Your task to perform on an android device: Go to CNN.com Image 0: 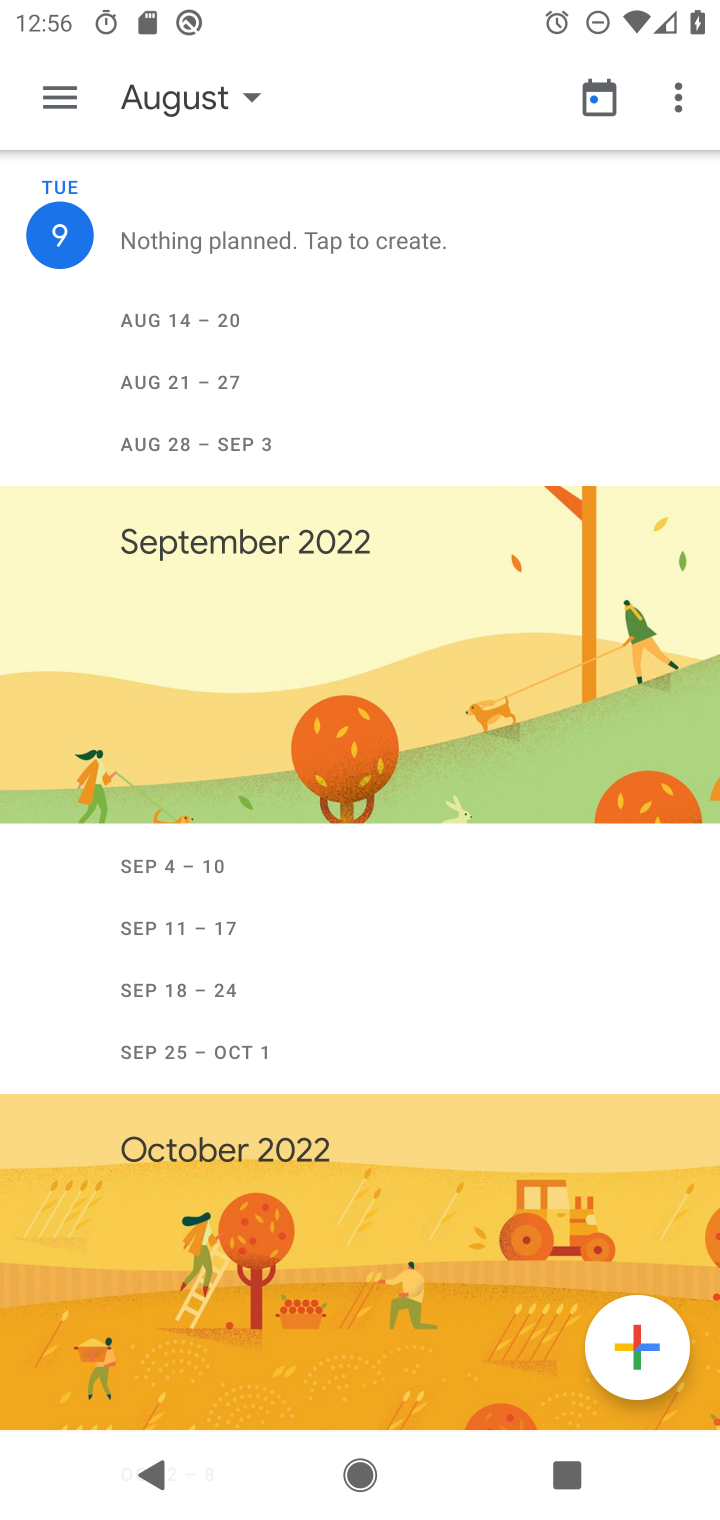
Step 0: press home button
Your task to perform on an android device: Go to CNN.com Image 1: 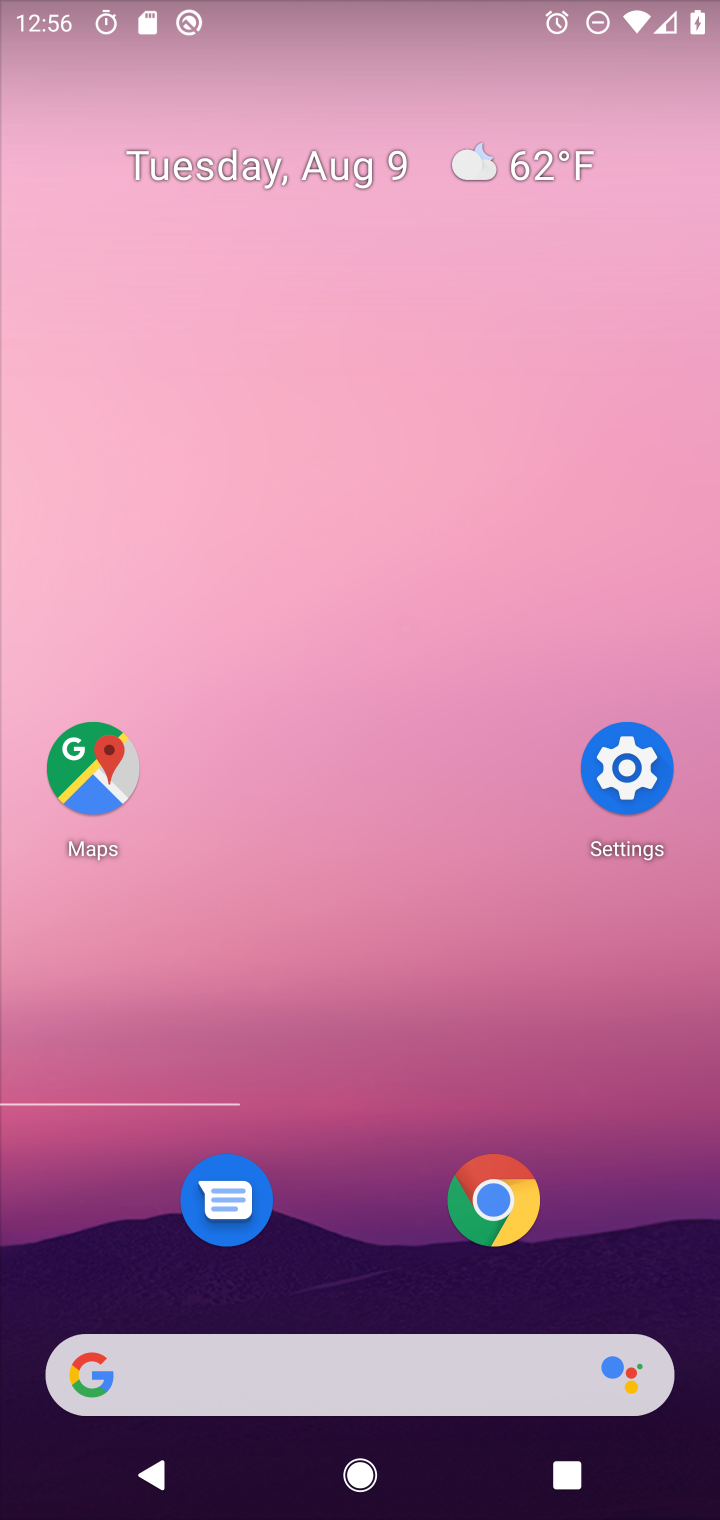
Step 1: click (487, 1203)
Your task to perform on an android device: Go to CNN.com Image 2: 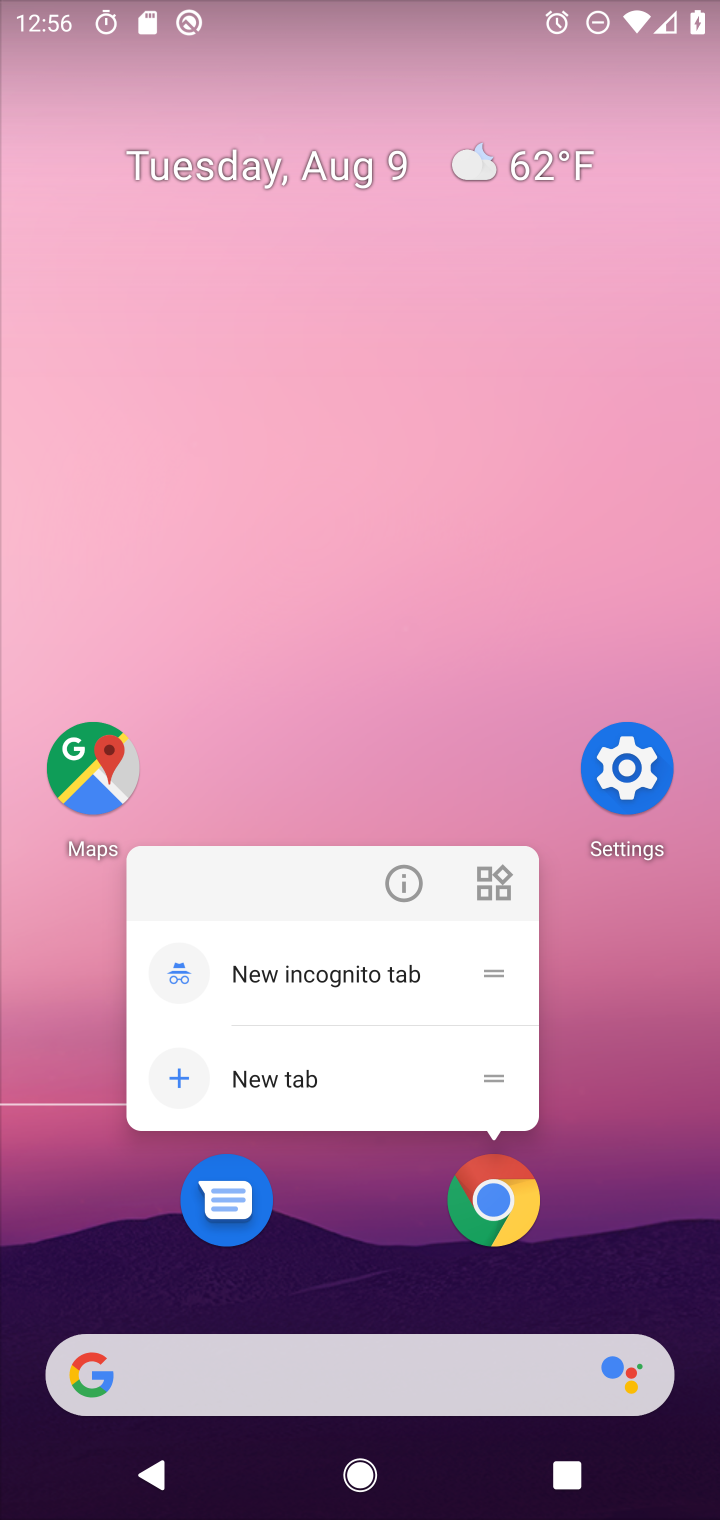
Step 2: click (487, 1210)
Your task to perform on an android device: Go to CNN.com Image 3: 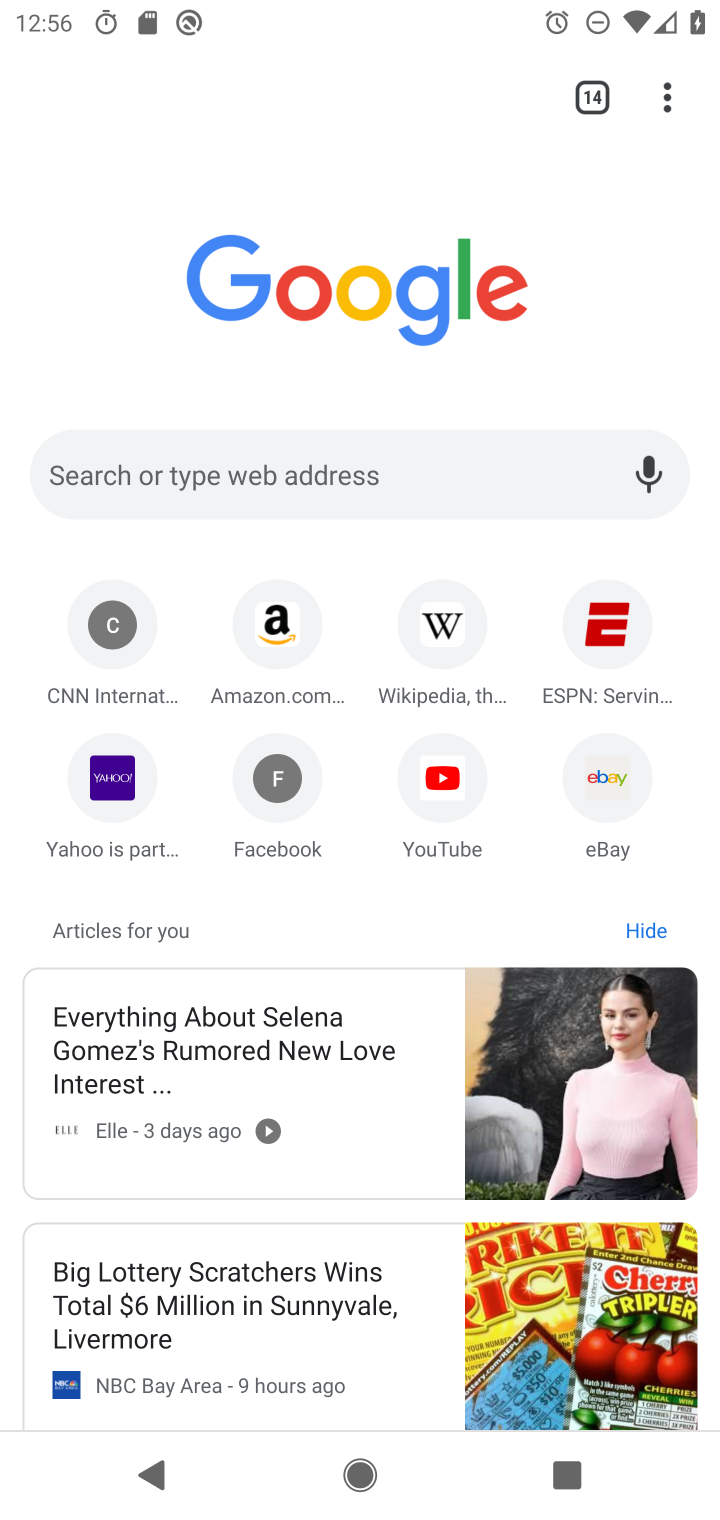
Step 3: click (167, 466)
Your task to perform on an android device: Go to CNN.com Image 4: 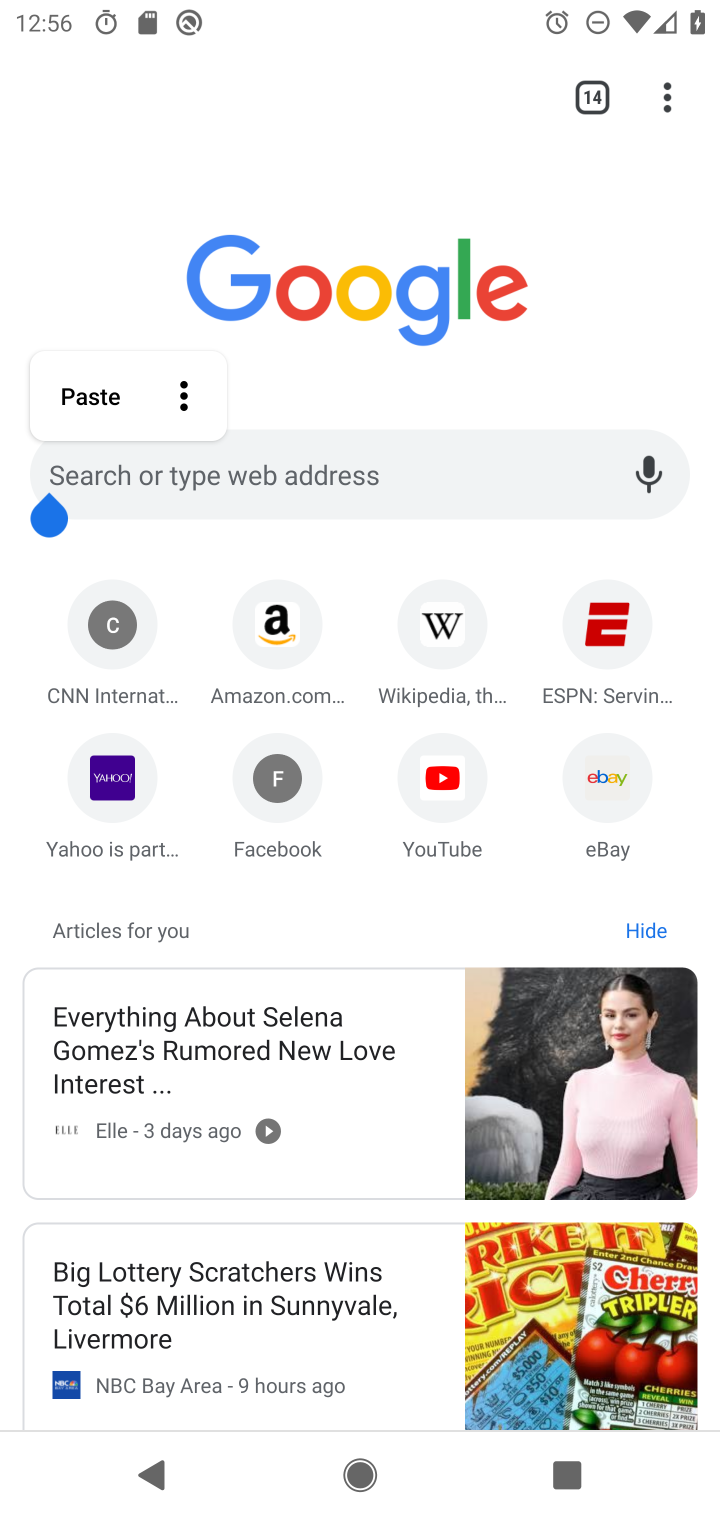
Step 4: click (191, 476)
Your task to perform on an android device: Go to CNN.com Image 5: 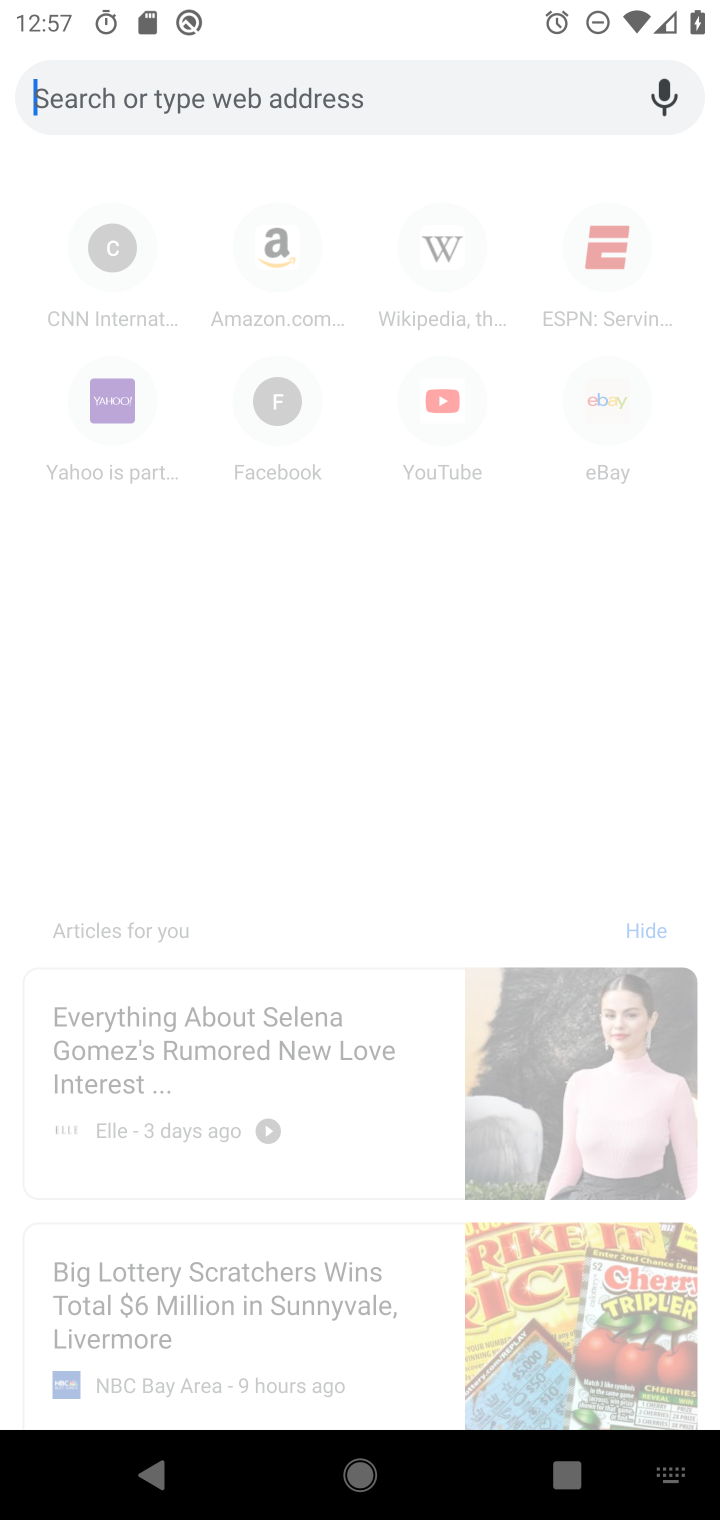
Step 5: type "CNN.com"
Your task to perform on an android device: Go to CNN.com Image 6: 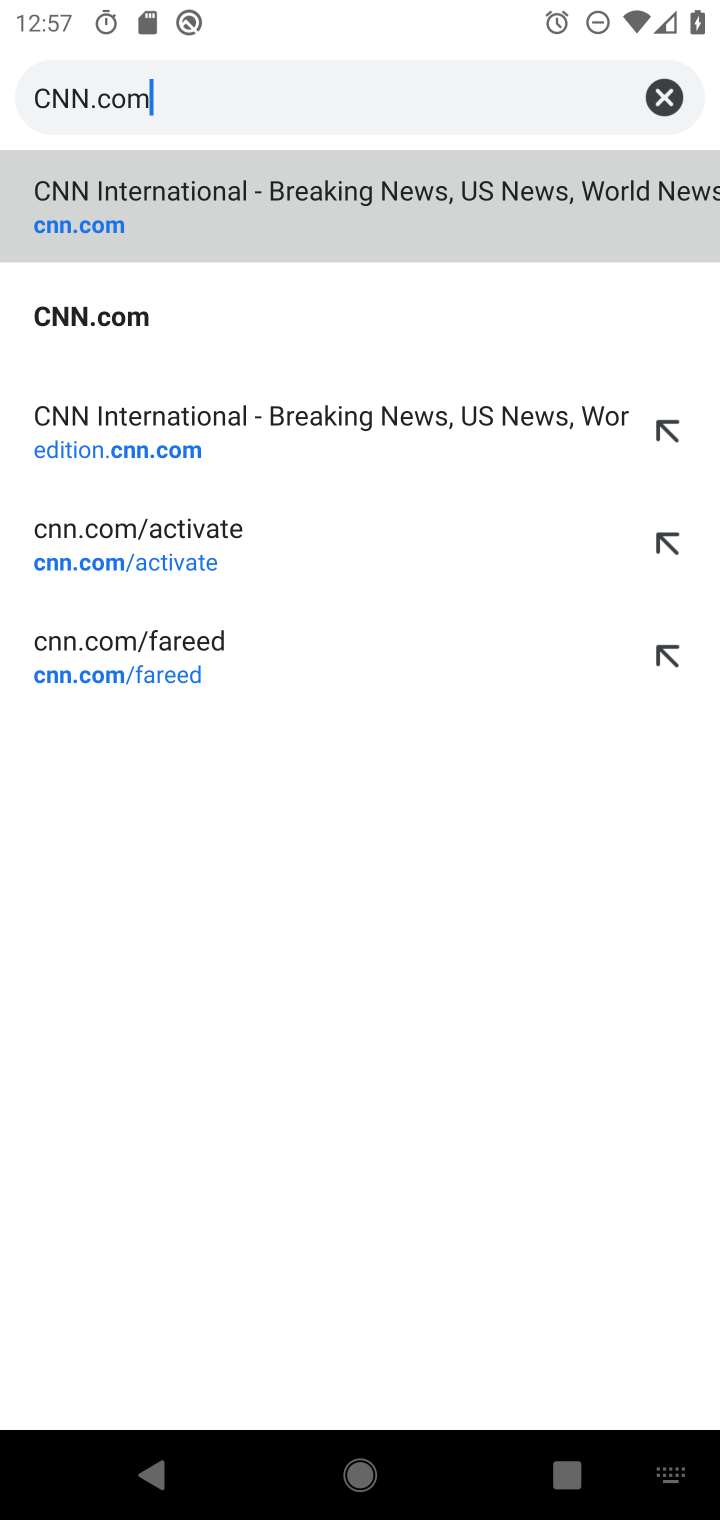
Step 6: click (382, 223)
Your task to perform on an android device: Go to CNN.com Image 7: 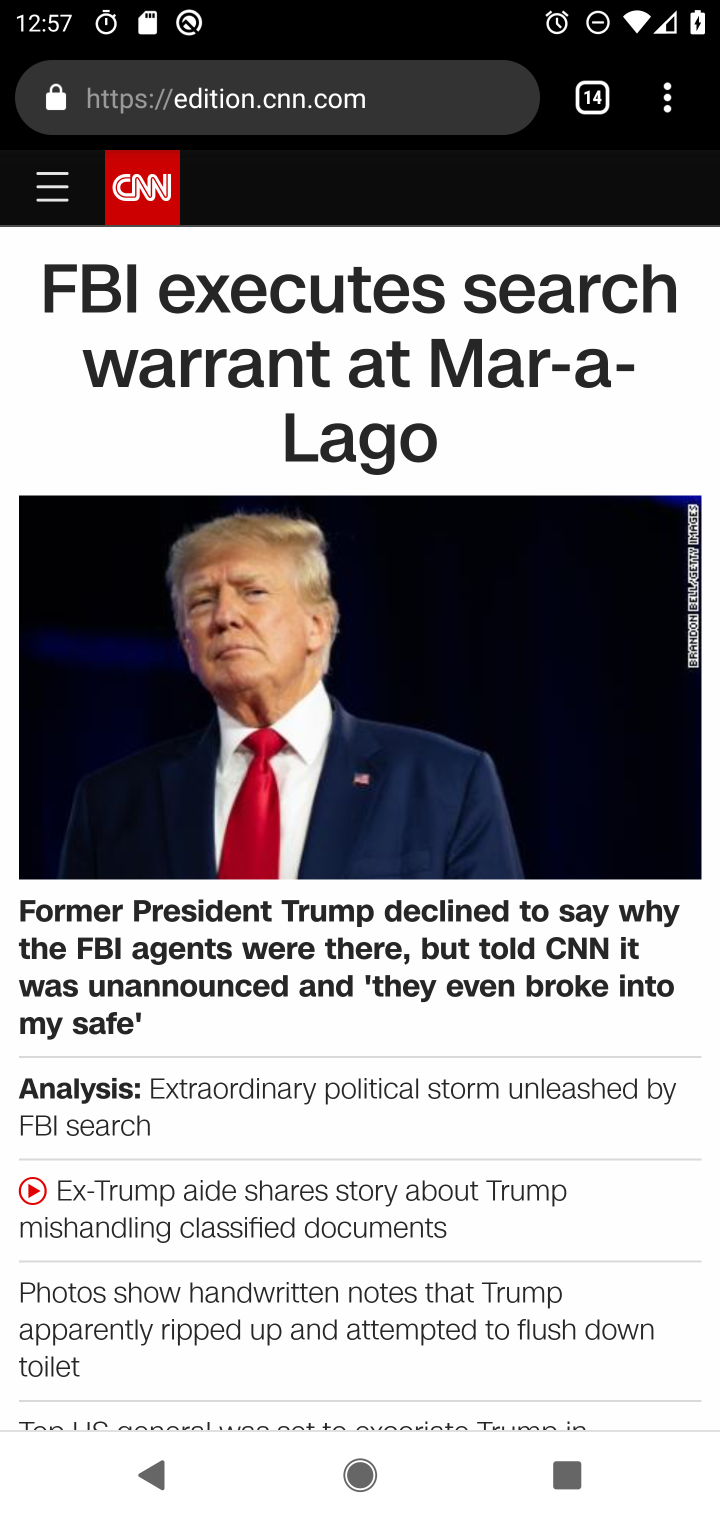
Step 7: task complete